Your task to perform on an android device: What's on my calendar today? Image 0: 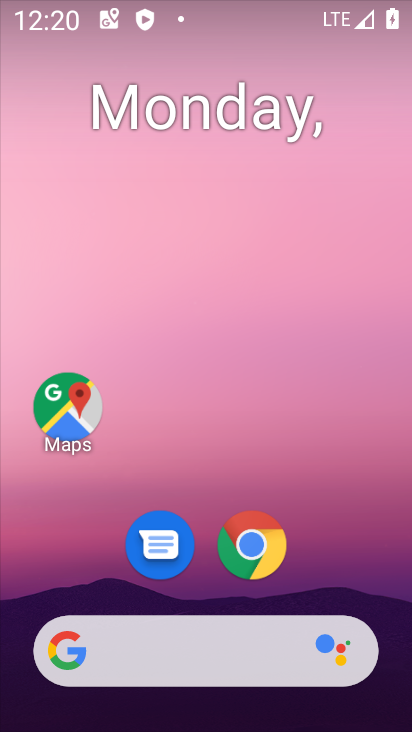
Step 0: drag from (379, 565) to (376, 245)
Your task to perform on an android device: What's on my calendar today? Image 1: 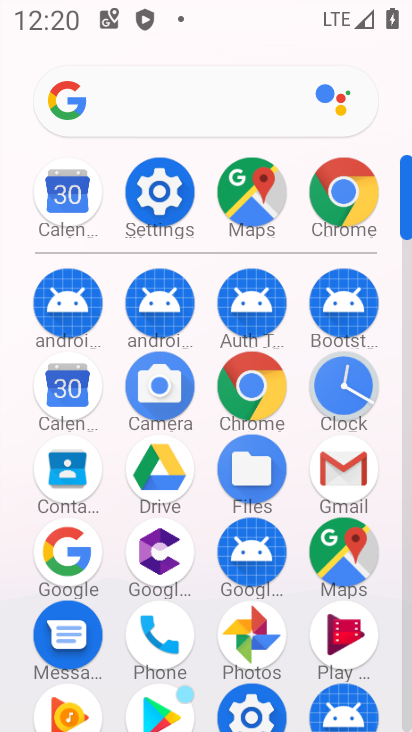
Step 1: click (66, 398)
Your task to perform on an android device: What's on my calendar today? Image 2: 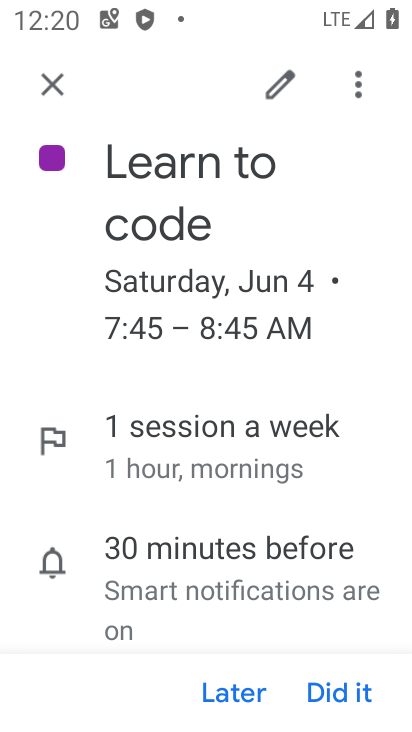
Step 2: click (33, 101)
Your task to perform on an android device: What's on my calendar today? Image 3: 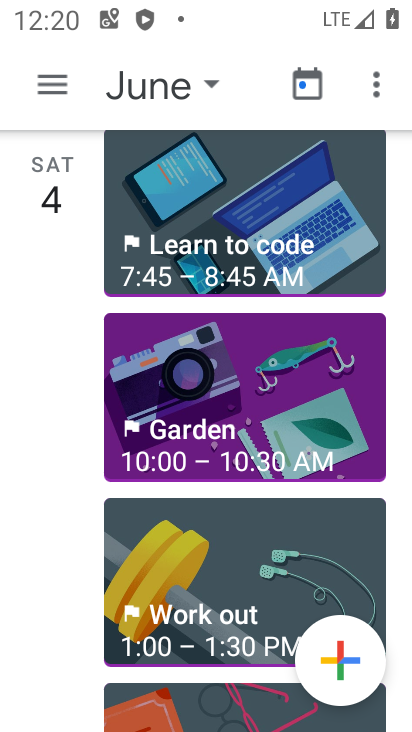
Step 3: click (204, 79)
Your task to perform on an android device: What's on my calendar today? Image 4: 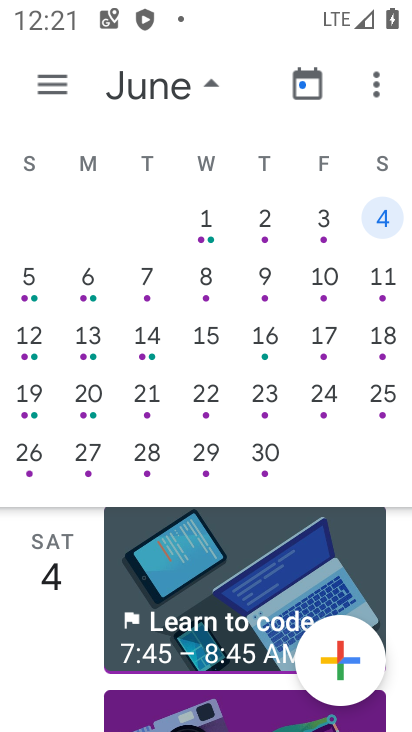
Step 4: drag from (56, 198) to (408, 226)
Your task to perform on an android device: What's on my calendar today? Image 5: 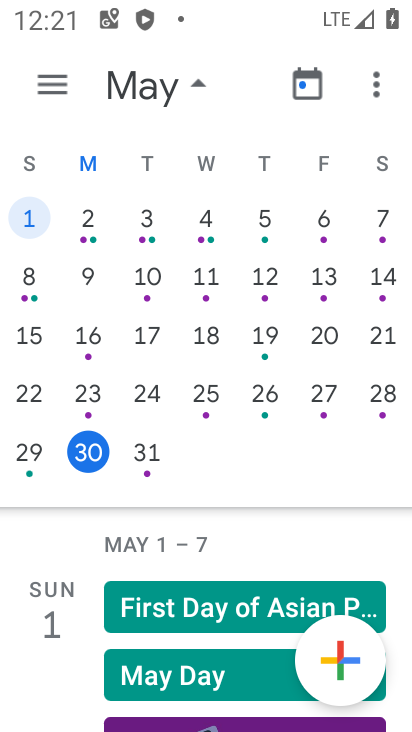
Step 5: click (86, 446)
Your task to perform on an android device: What's on my calendar today? Image 6: 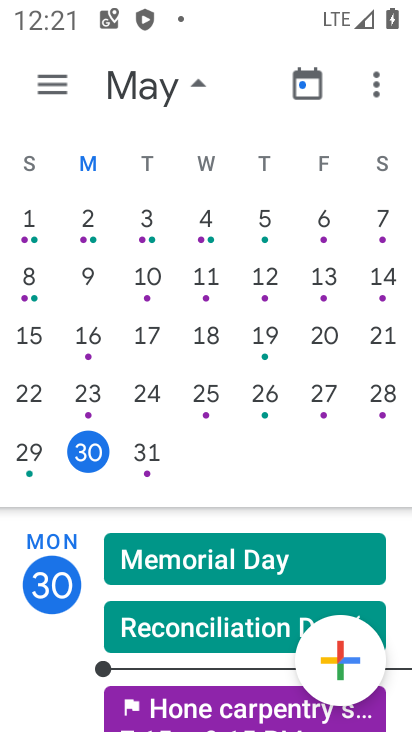
Step 6: task complete